Your task to perform on an android device: Open settings on Google Maps Image 0: 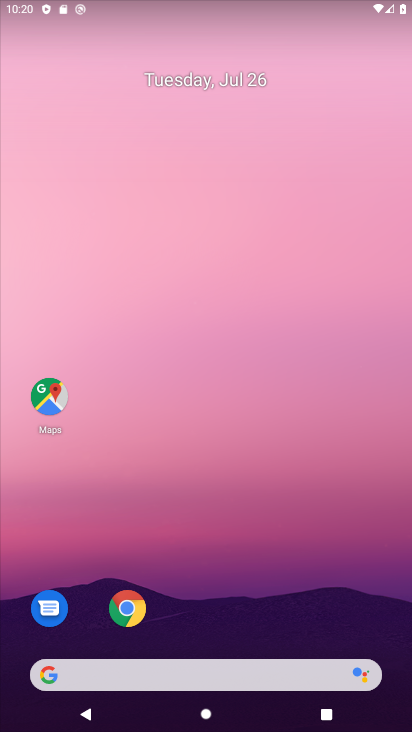
Step 0: drag from (307, 620) to (254, 29)
Your task to perform on an android device: Open settings on Google Maps Image 1: 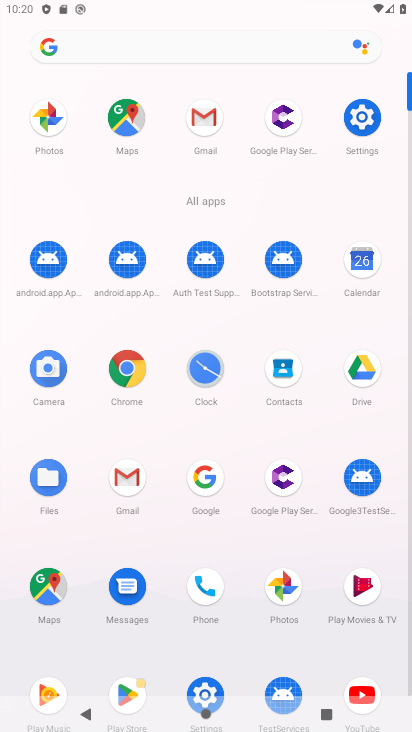
Step 1: click (131, 126)
Your task to perform on an android device: Open settings on Google Maps Image 2: 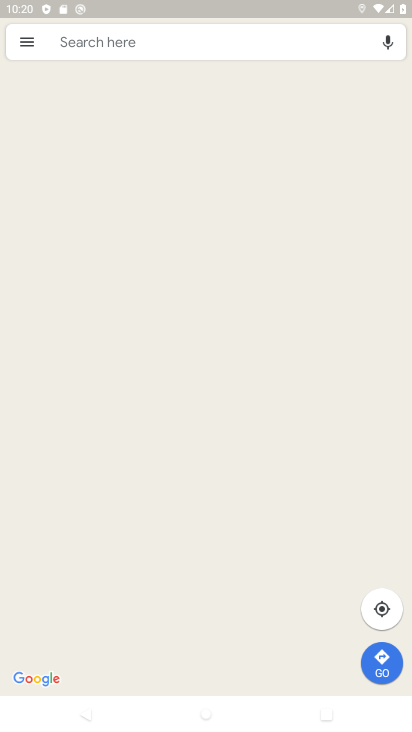
Step 2: click (29, 45)
Your task to perform on an android device: Open settings on Google Maps Image 3: 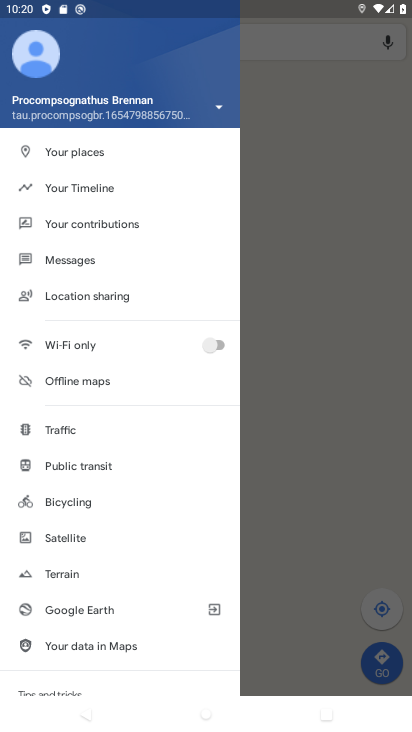
Step 3: drag from (104, 611) to (168, 128)
Your task to perform on an android device: Open settings on Google Maps Image 4: 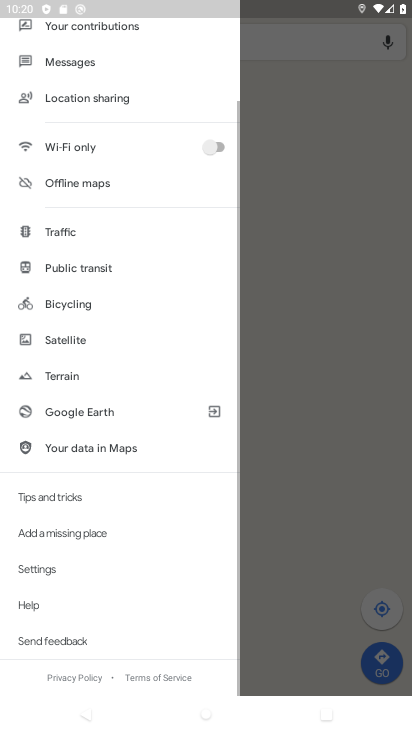
Step 4: drag from (185, 583) to (227, 162)
Your task to perform on an android device: Open settings on Google Maps Image 5: 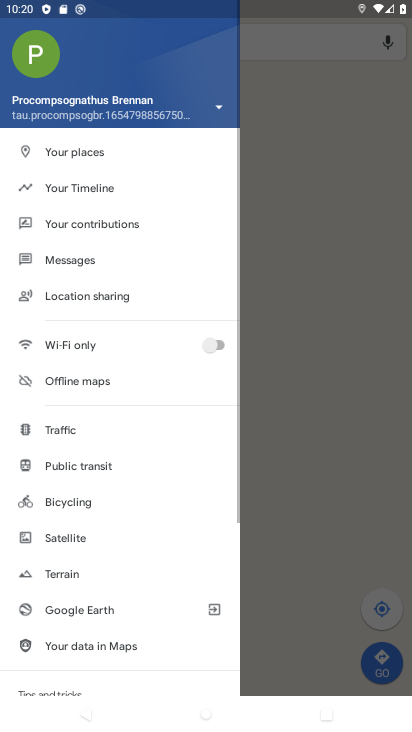
Step 5: drag from (125, 560) to (207, 146)
Your task to perform on an android device: Open settings on Google Maps Image 6: 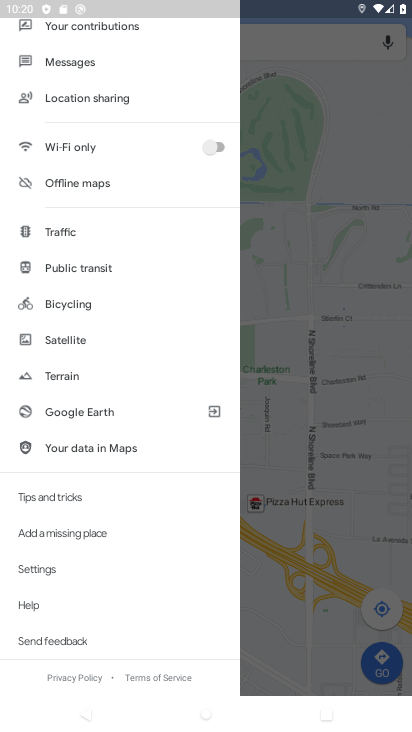
Step 6: click (44, 574)
Your task to perform on an android device: Open settings on Google Maps Image 7: 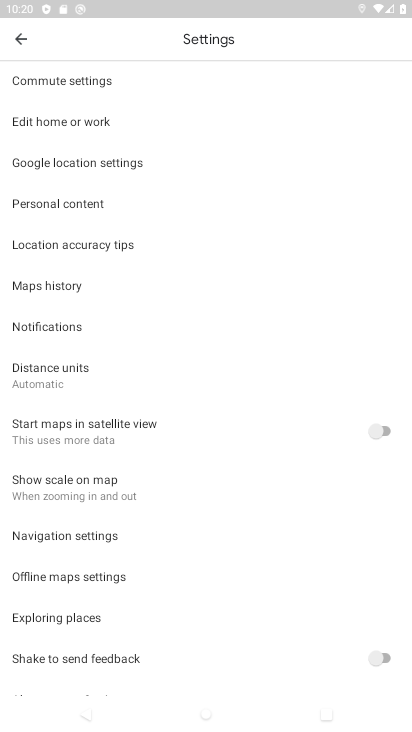
Step 7: task complete